Your task to perform on an android device: What's the weather today? Image 0: 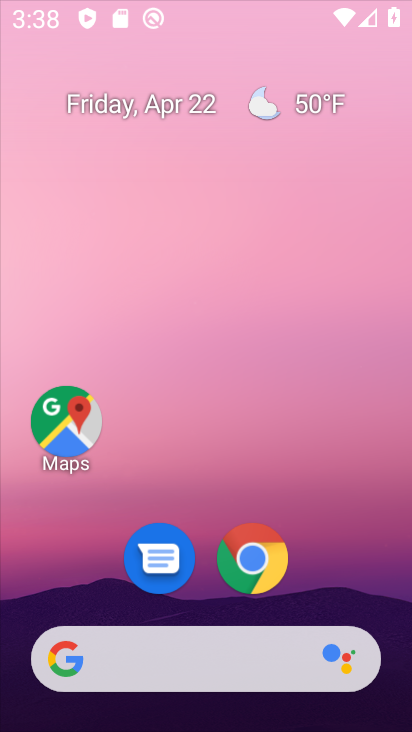
Step 0: click (250, 570)
Your task to perform on an android device: What's the weather today? Image 1: 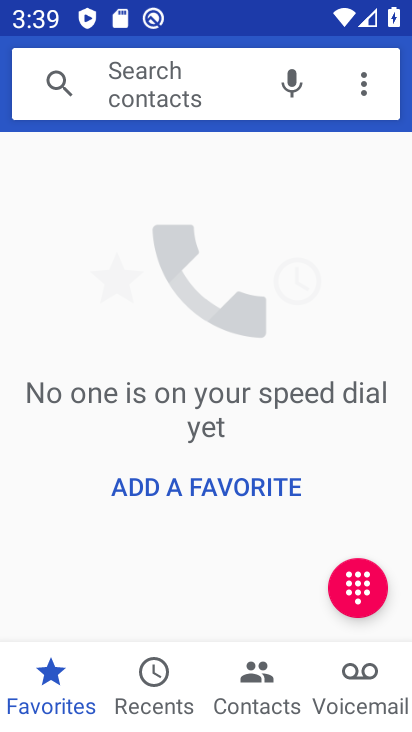
Step 1: press home button
Your task to perform on an android device: What's the weather today? Image 2: 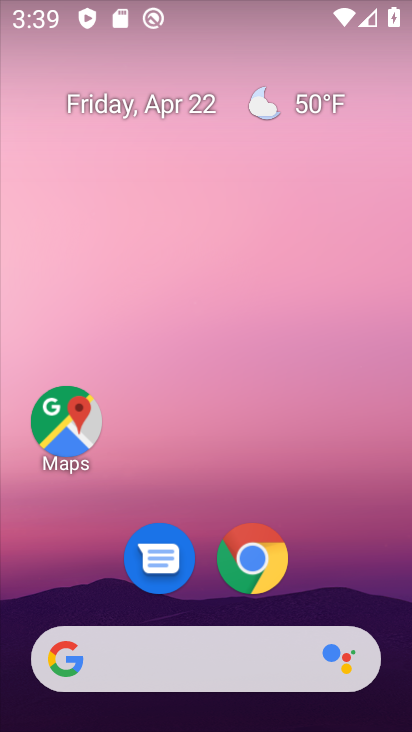
Step 2: drag from (309, 499) to (222, 144)
Your task to perform on an android device: What's the weather today? Image 3: 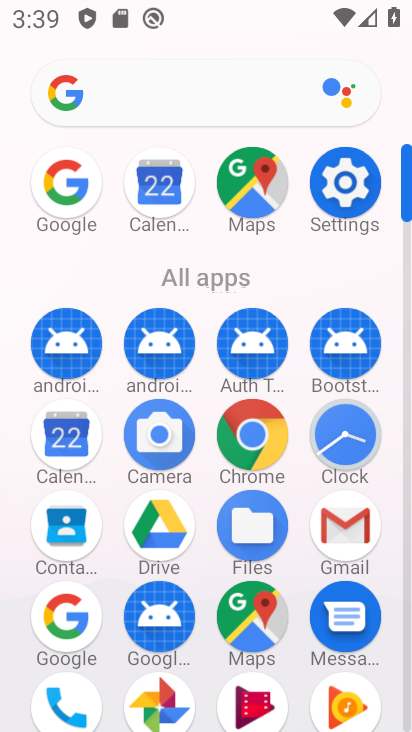
Step 3: click (244, 473)
Your task to perform on an android device: What's the weather today? Image 4: 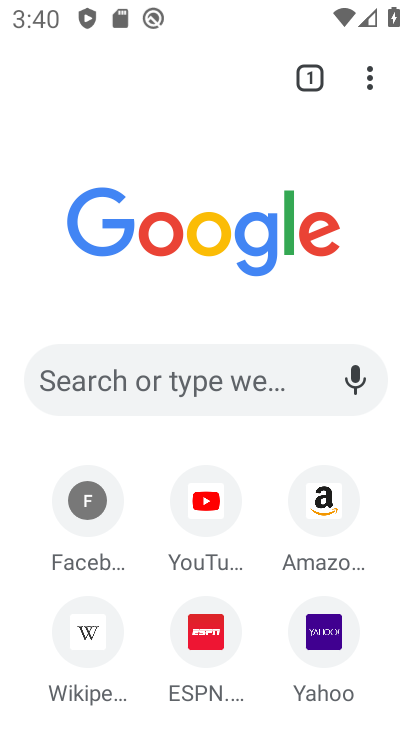
Step 4: click (127, 400)
Your task to perform on an android device: What's the weather today? Image 5: 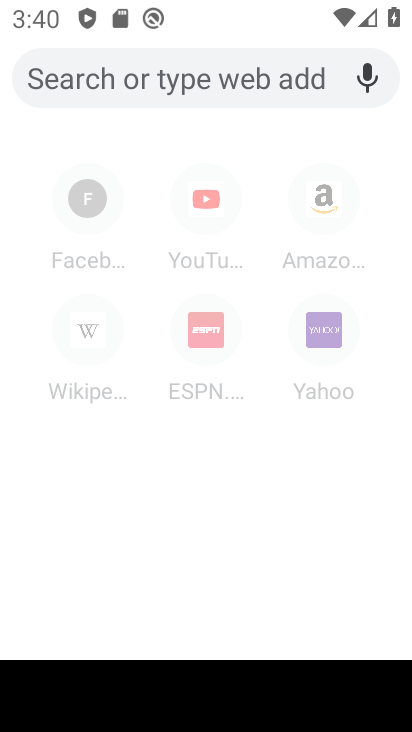
Step 5: press home button
Your task to perform on an android device: What's the weather today? Image 6: 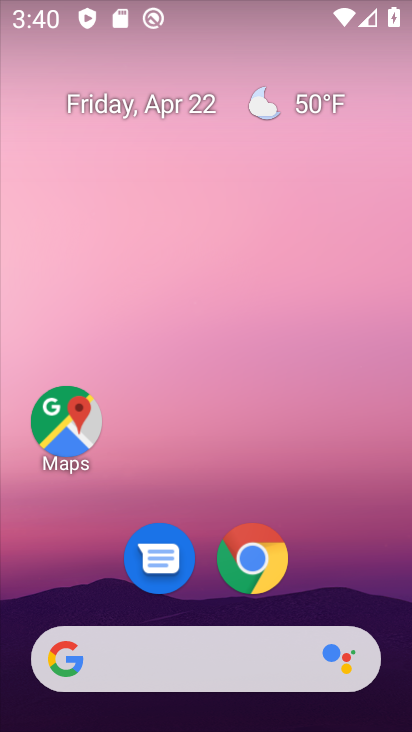
Step 6: drag from (316, 501) to (286, 163)
Your task to perform on an android device: What's the weather today? Image 7: 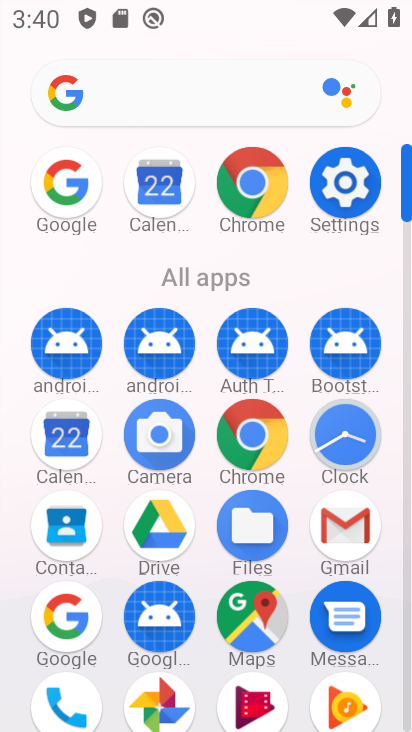
Step 7: click (85, 211)
Your task to perform on an android device: What's the weather today? Image 8: 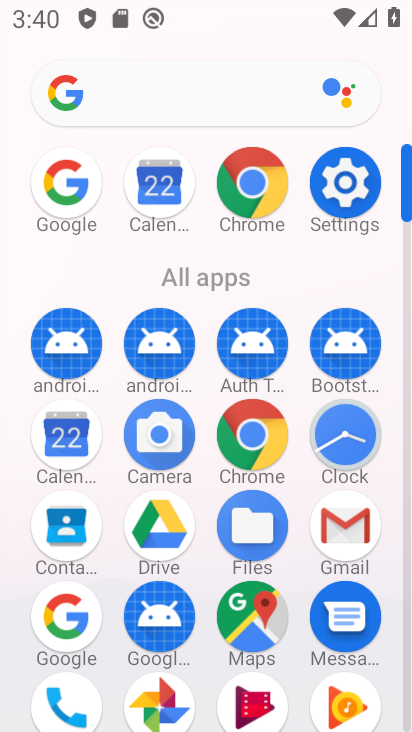
Step 8: click (71, 202)
Your task to perform on an android device: What's the weather today? Image 9: 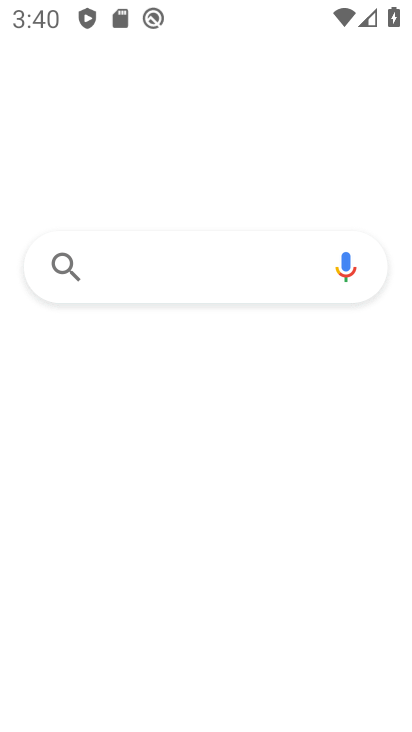
Step 9: click (136, 285)
Your task to perform on an android device: What's the weather today? Image 10: 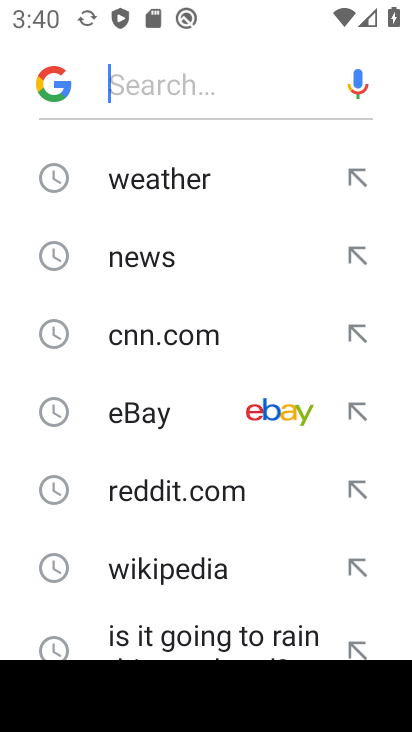
Step 10: click (137, 181)
Your task to perform on an android device: What's the weather today? Image 11: 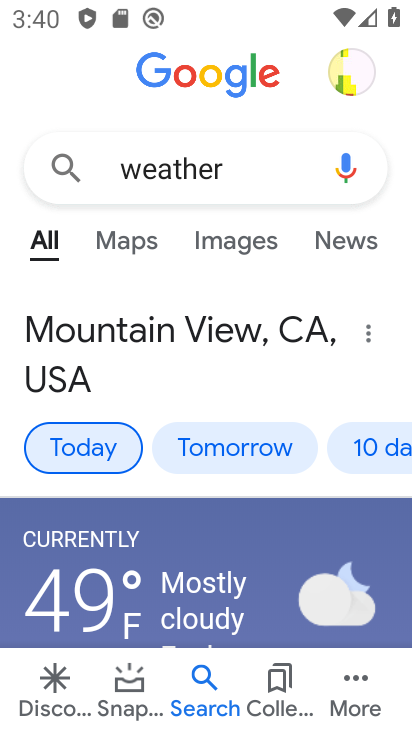
Step 11: task complete